Your task to perform on an android device: turn off smart reply in the gmail app Image 0: 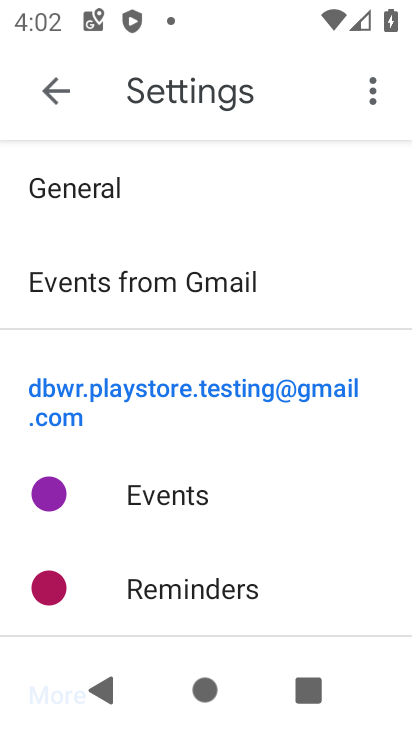
Step 0: press home button
Your task to perform on an android device: turn off smart reply in the gmail app Image 1: 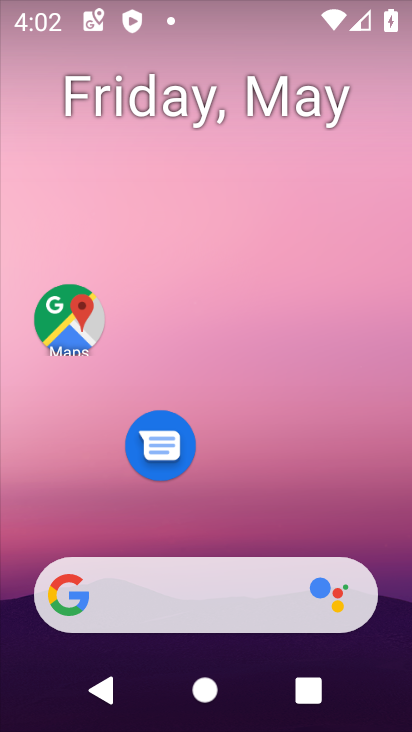
Step 1: drag from (191, 533) to (297, 14)
Your task to perform on an android device: turn off smart reply in the gmail app Image 2: 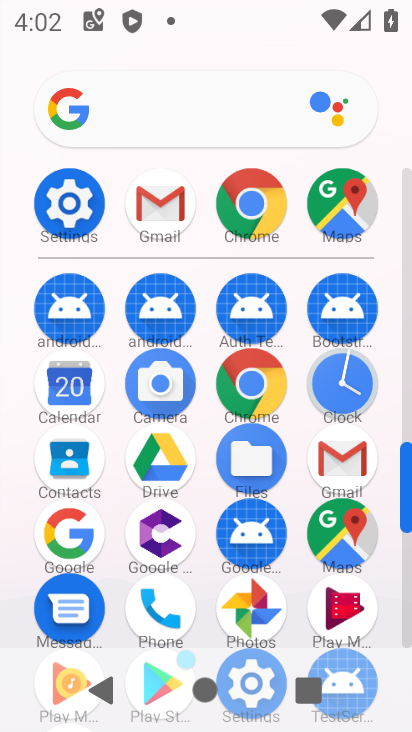
Step 2: click (343, 461)
Your task to perform on an android device: turn off smart reply in the gmail app Image 3: 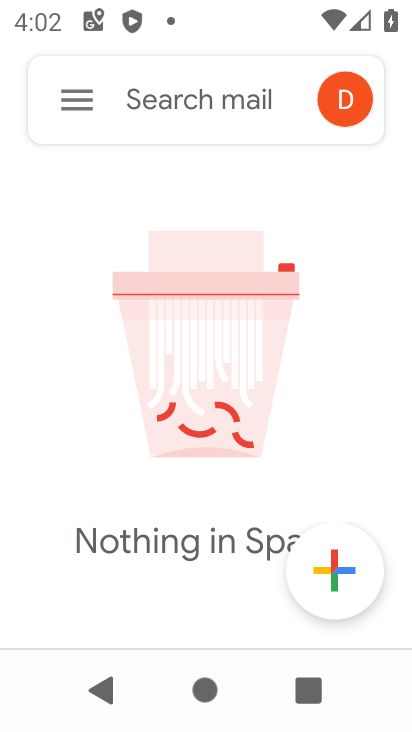
Step 3: click (70, 103)
Your task to perform on an android device: turn off smart reply in the gmail app Image 4: 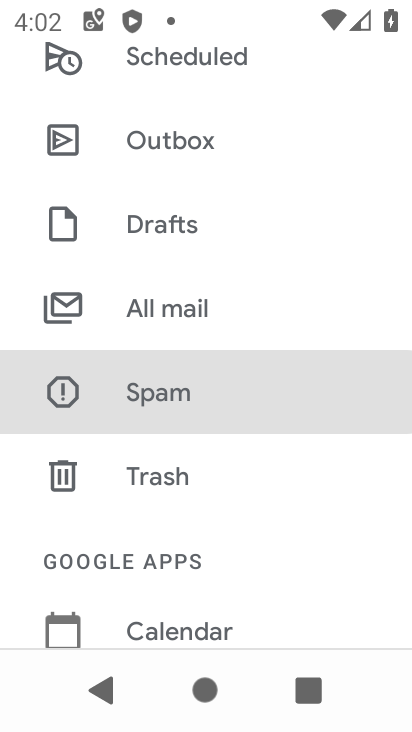
Step 4: drag from (151, 537) to (233, 53)
Your task to perform on an android device: turn off smart reply in the gmail app Image 5: 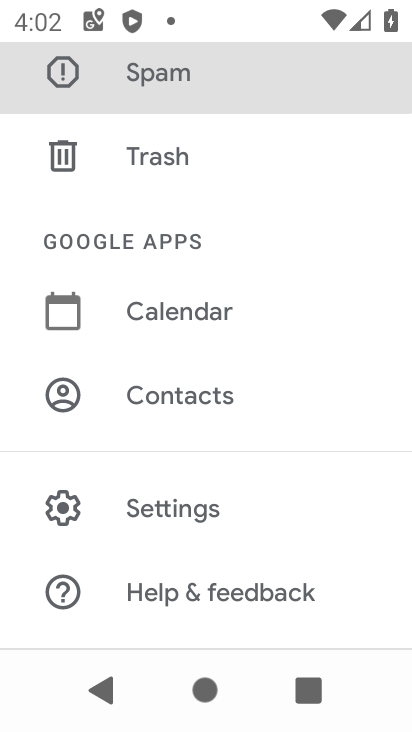
Step 5: click (192, 519)
Your task to perform on an android device: turn off smart reply in the gmail app Image 6: 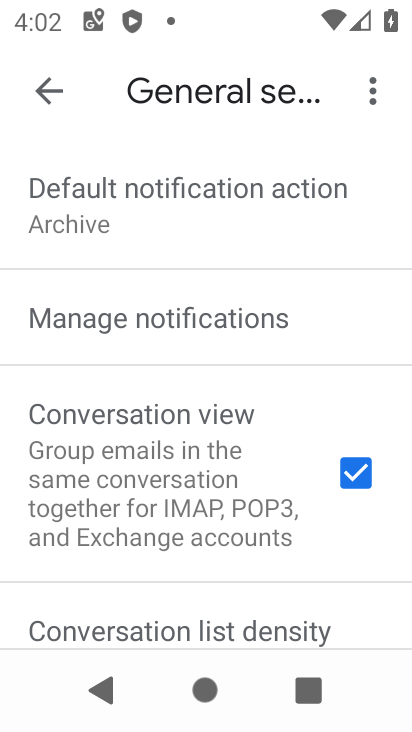
Step 6: click (47, 96)
Your task to perform on an android device: turn off smart reply in the gmail app Image 7: 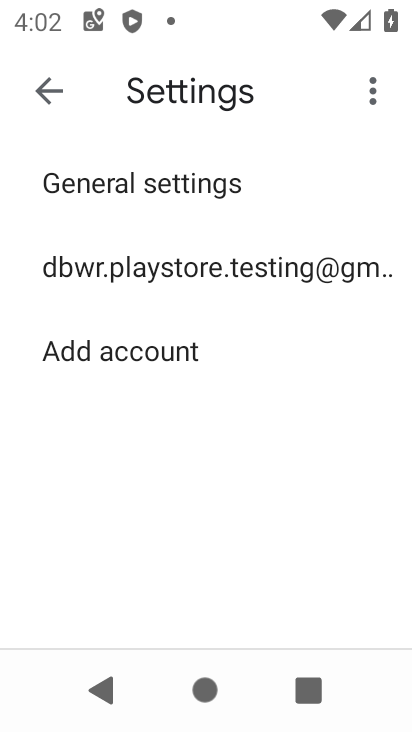
Step 7: click (142, 258)
Your task to perform on an android device: turn off smart reply in the gmail app Image 8: 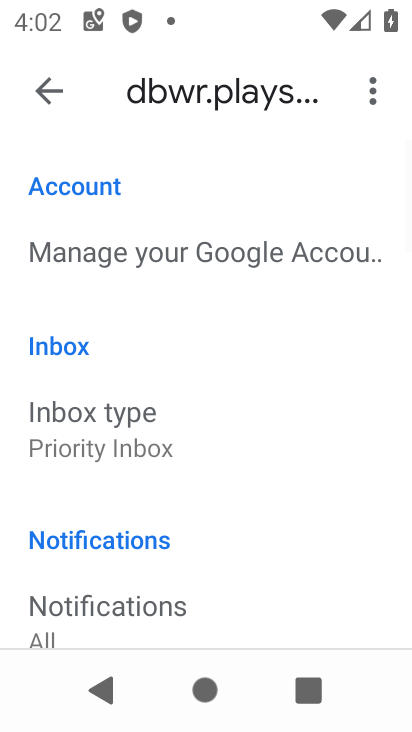
Step 8: drag from (145, 485) to (191, 38)
Your task to perform on an android device: turn off smart reply in the gmail app Image 9: 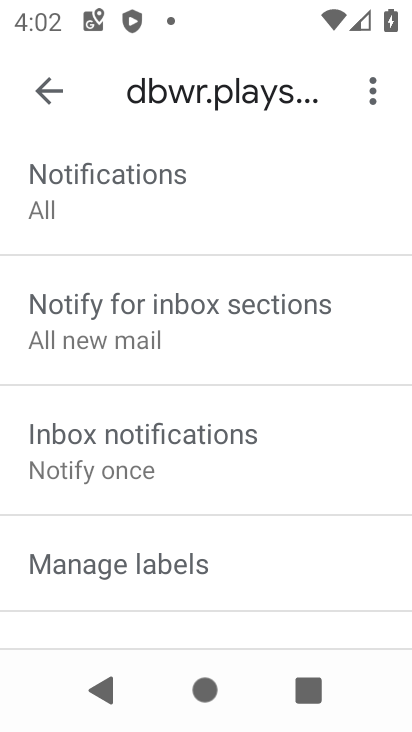
Step 9: drag from (171, 496) to (238, 59)
Your task to perform on an android device: turn off smart reply in the gmail app Image 10: 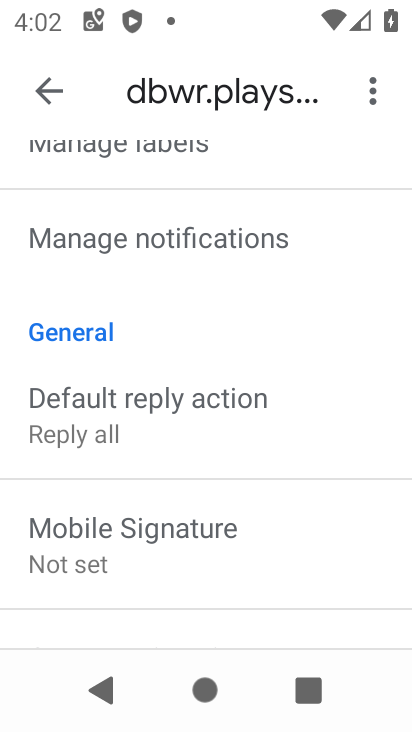
Step 10: drag from (193, 490) to (220, 137)
Your task to perform on an android device: turn off smart reply in the gmail app Image 11: 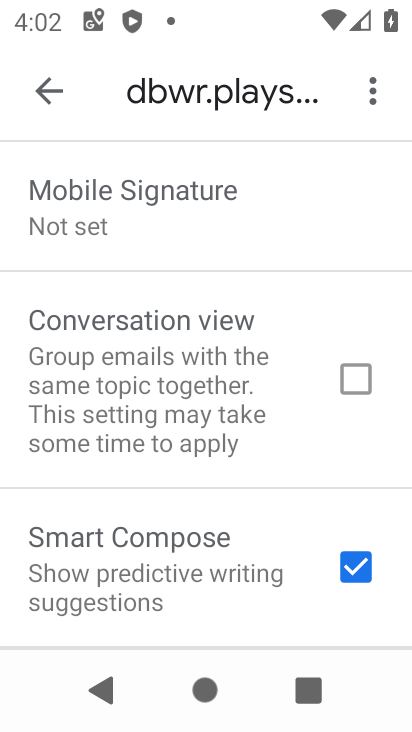
Step 11: drag from (174, 525) to (220, 155)
Your task to perform on an android device: turn off smart reply in the gmail app Image 12: 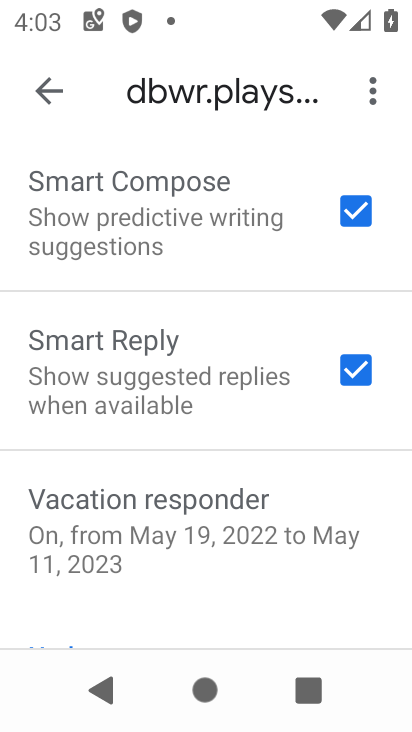
Step 12: click (352, 371)
Your task to perform on an android device: turn off smart reply in the gmail app Image 13: 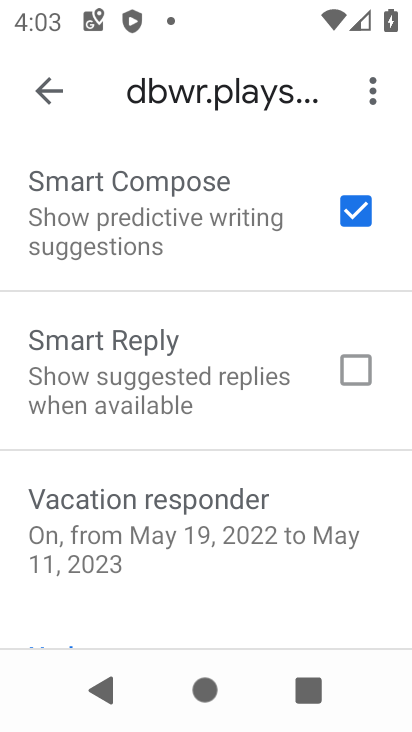
Step 13: task complete